Your task to perform on an android device: Go to CNN.com Image 0: 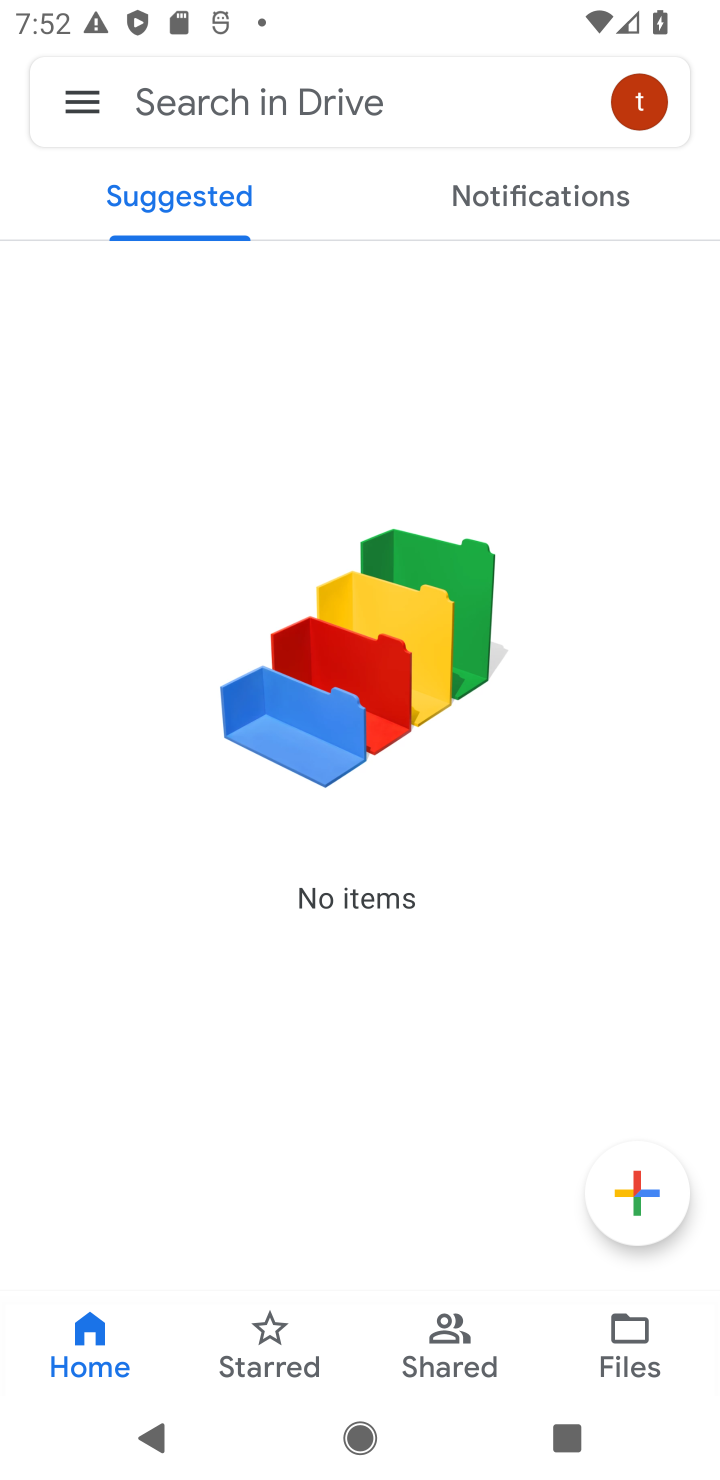
Step 0: press home button
Your task to perform on an android device: Go to CNN.com Image 1: 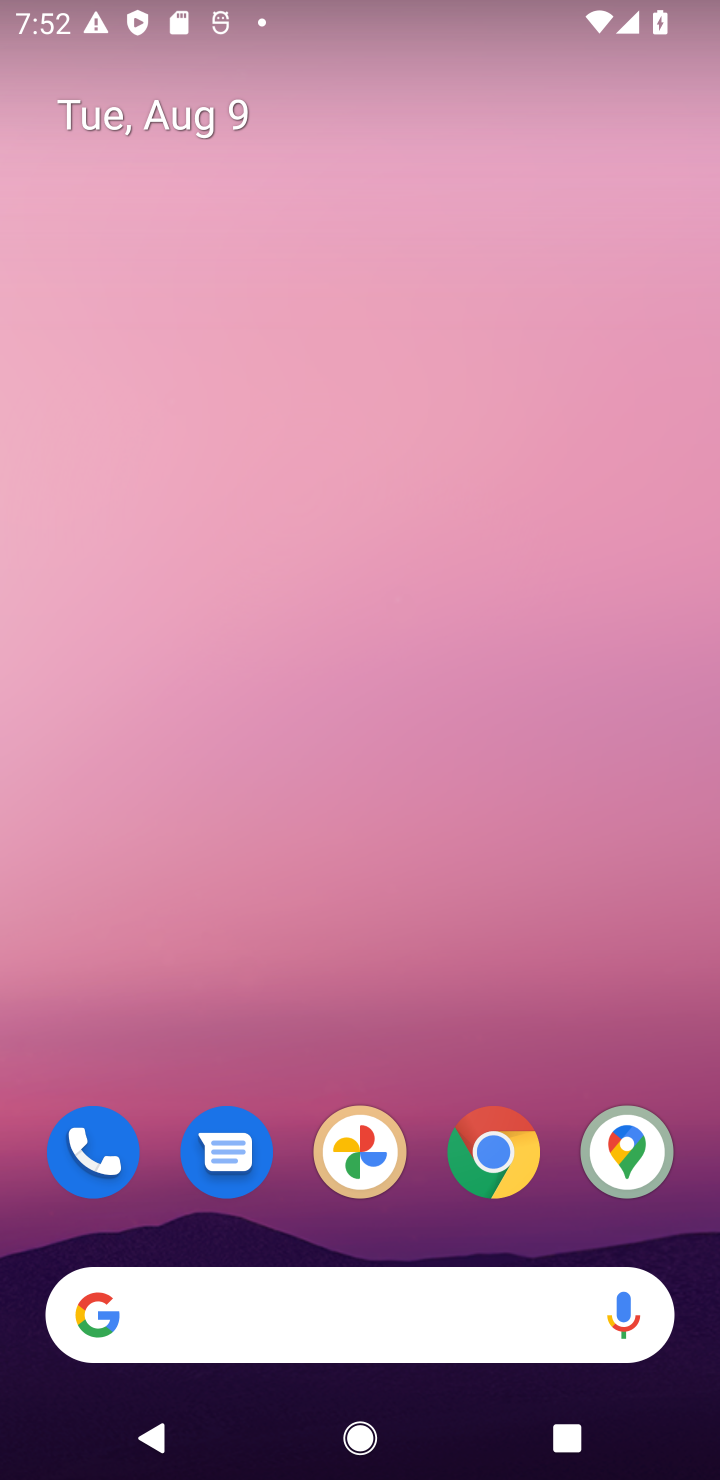
Step 1: click (501, 1308)
Your task to perform on an android device: Go to CNN.com Image 2: 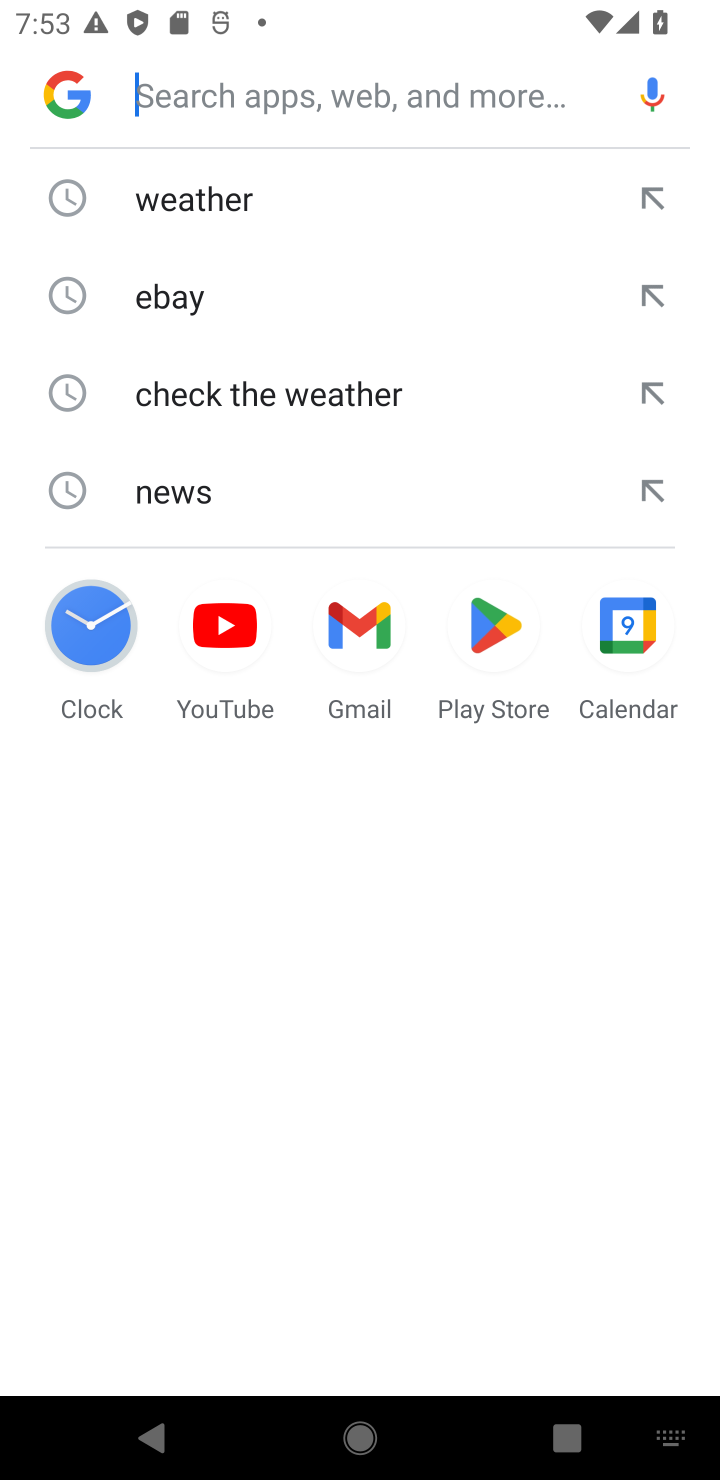
Step 2: click (415, 72)
Your task to perform on an android device: Go to CNN.com Image 3: 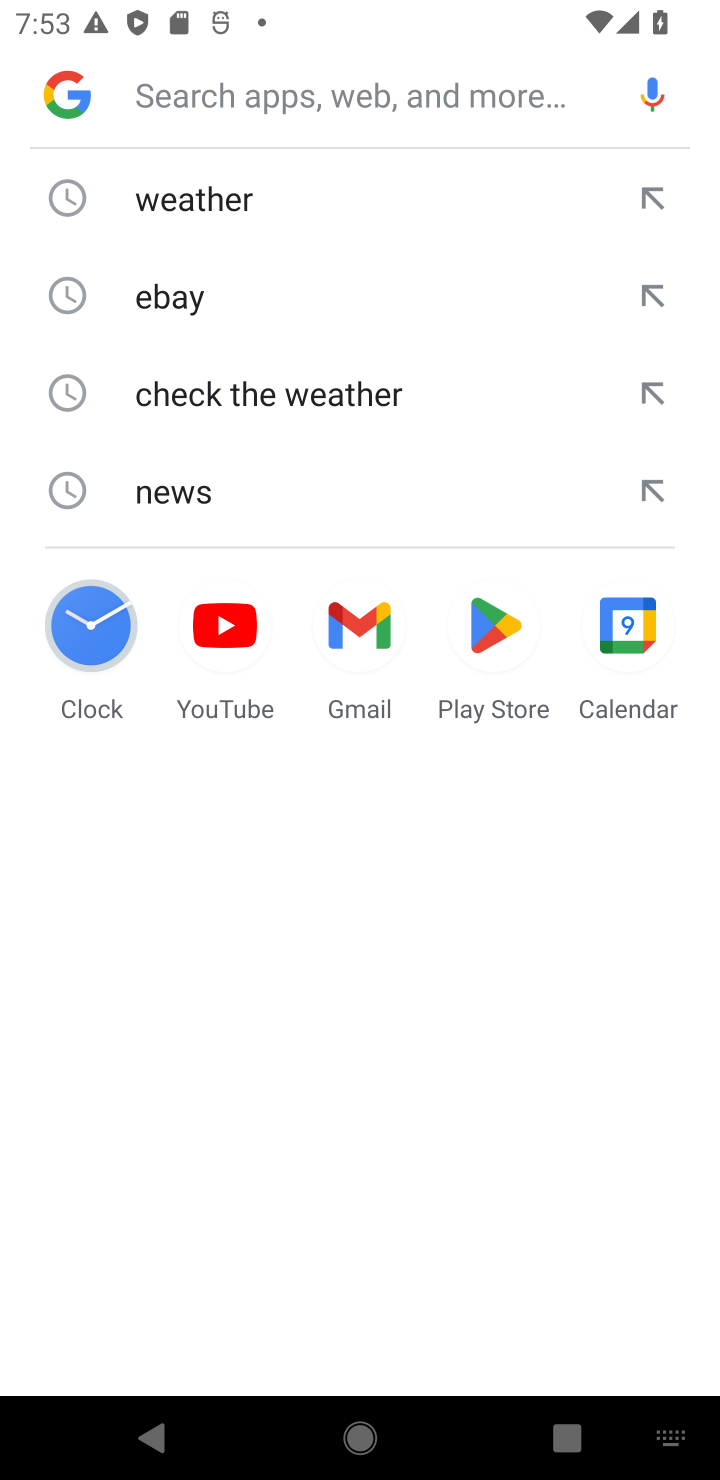
Step 3: type "cnn"
Your task to perform on an android device: Go to CNN.com Image 4: 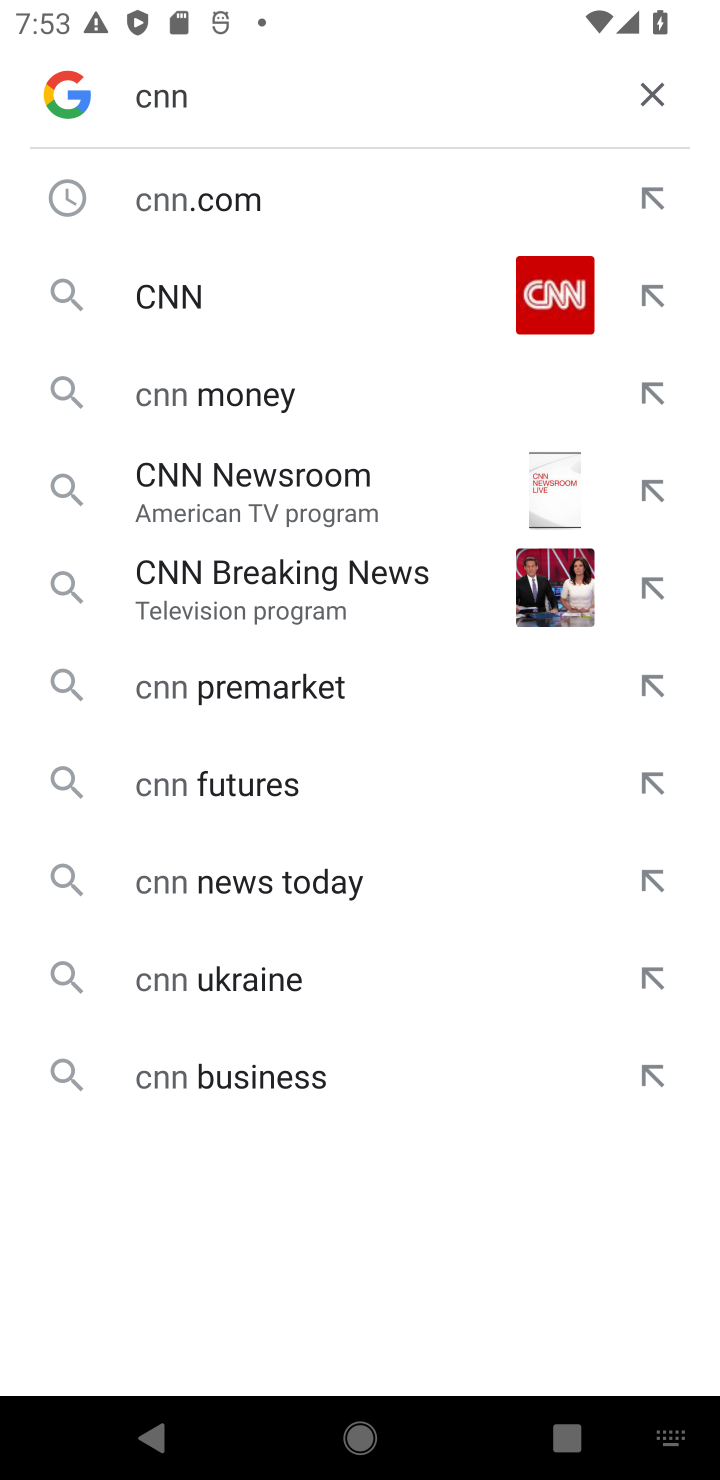
Step 4: click (232, 299)
Your task to perform on an android device: Go to CNN.com Image 5: 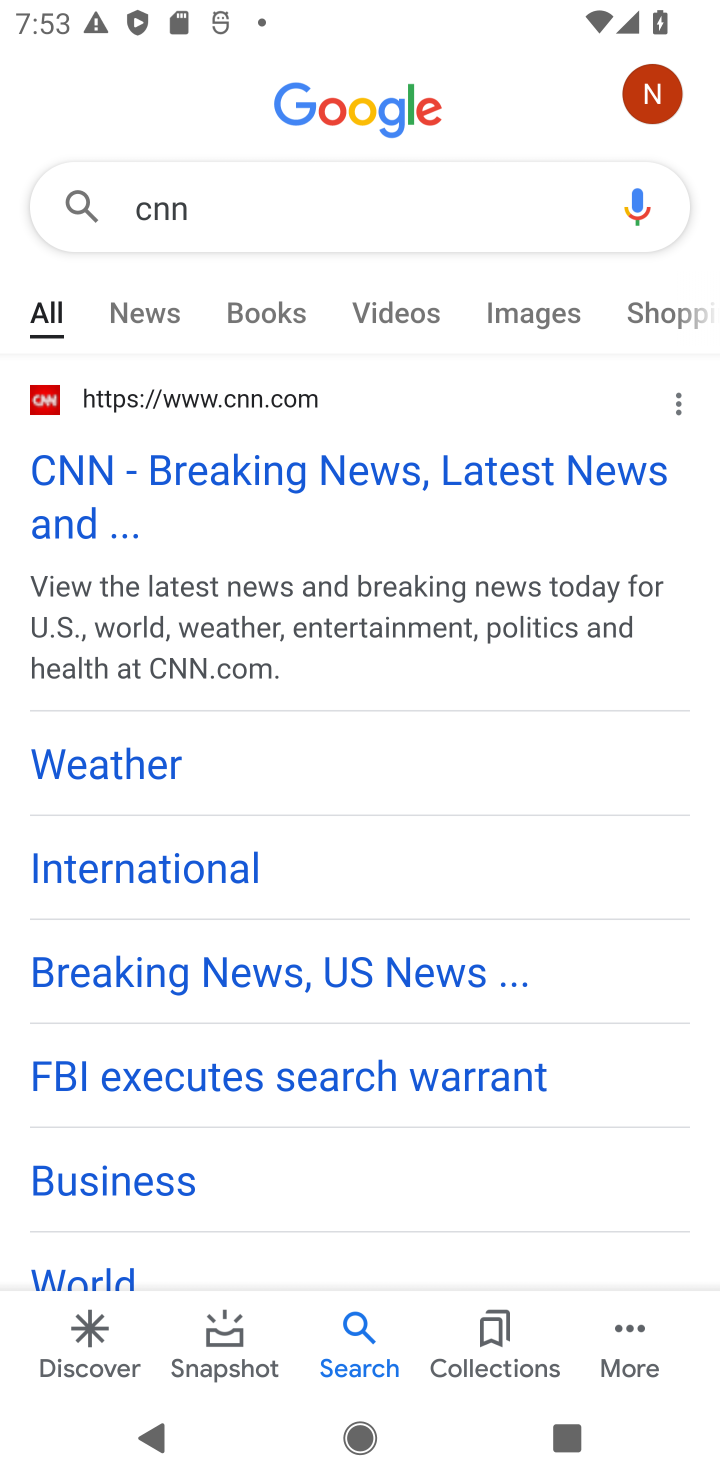
Step 5: click (335, 483)
Your task to perform on an android device: Go to CNN.com Image 6: 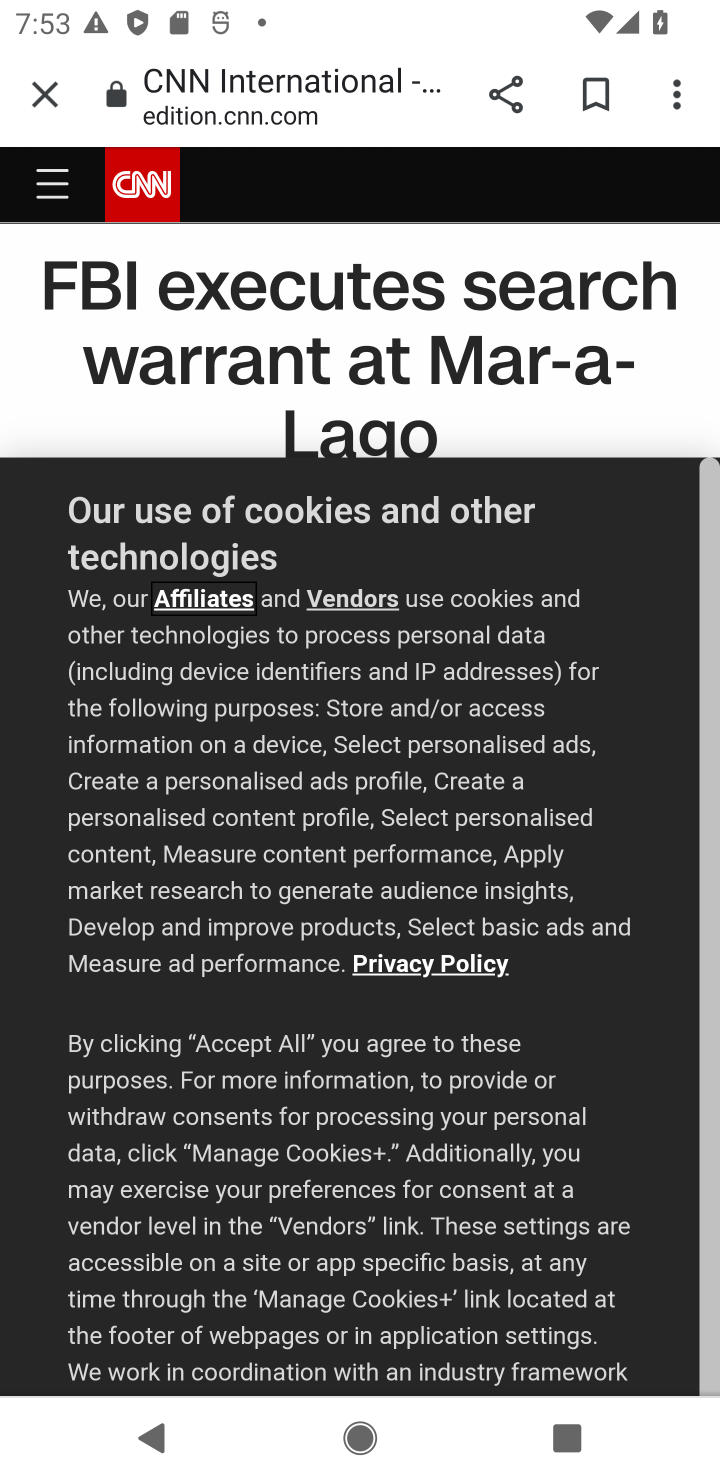
Step 6: task complete